Your task to perform on an android device: set an alarm Image 0: 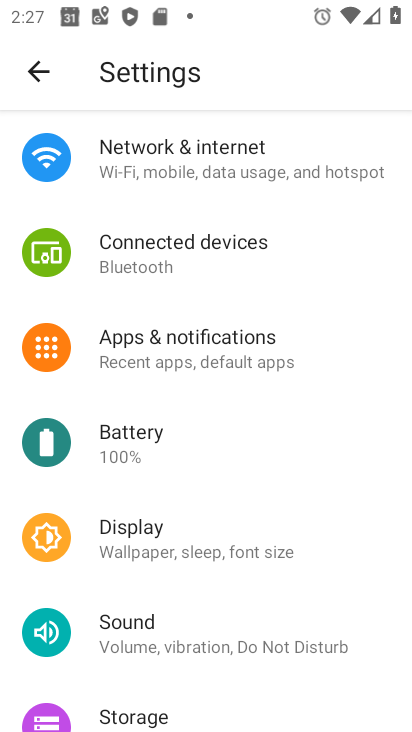
Step 0: press home button
Your task to perform on an android device: set an alarm Image 1: 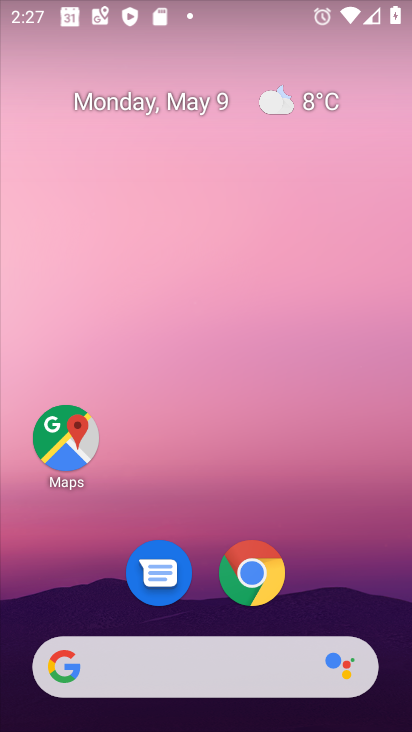
Step 1: drag from (164, 666) to (339, 73)
Your task to perform on an android device: set an alarm Image 2: 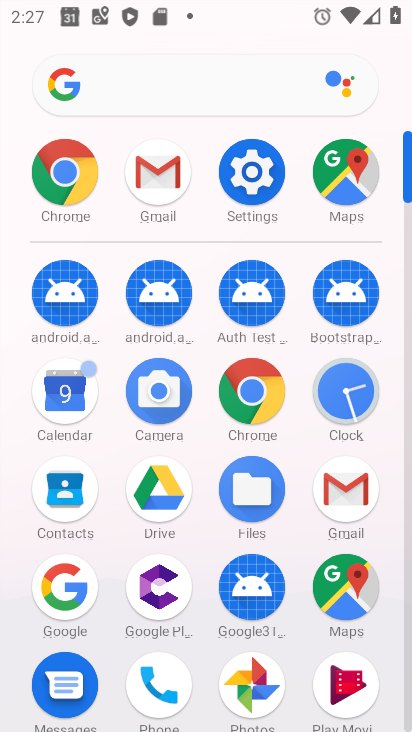
Step 2: click (339, 415)
Your task to perform on an android device: set an alarm Image 3: 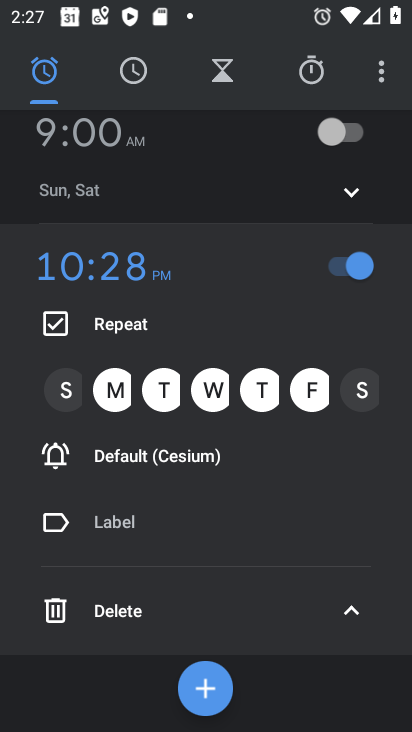
Step 3: task complete